Your task to perform on an android device: check data usage Image 0: 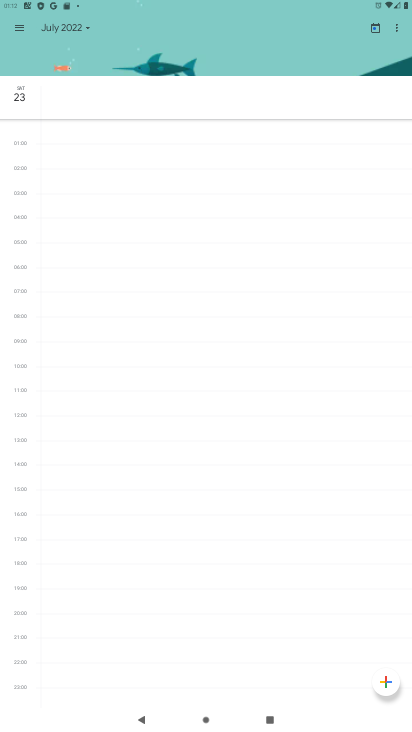
Step 0: press home button
Your task to perform on an android device: check data usage Image 1: 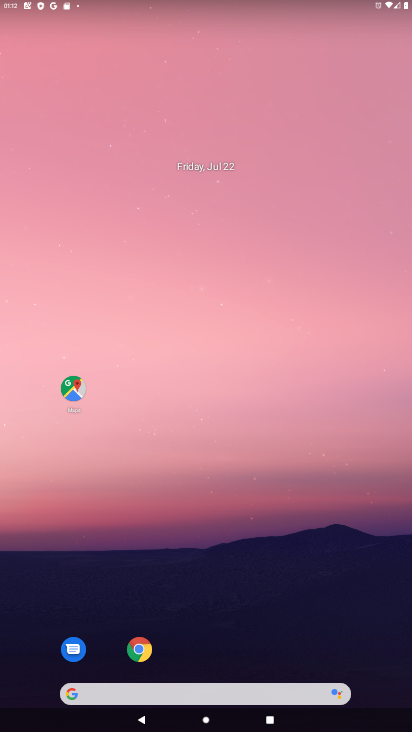
Step 1: drag from (206, 603) to (122, 152)
Your task to perform on an android device: check data usage Image 2: 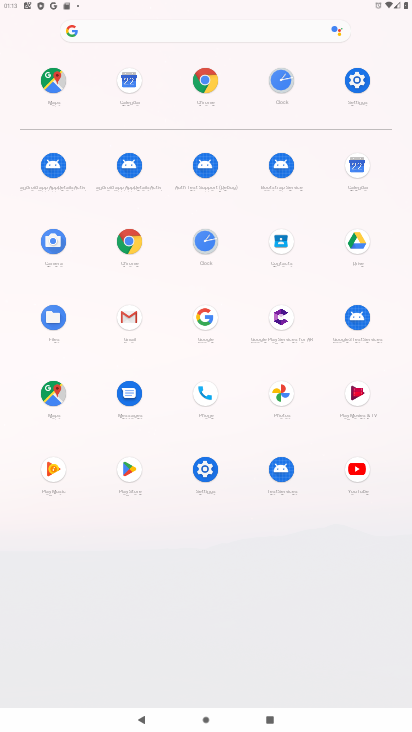
Step 2: click (359, 76)
Your task to perform on an android device: check data usage Image 3: 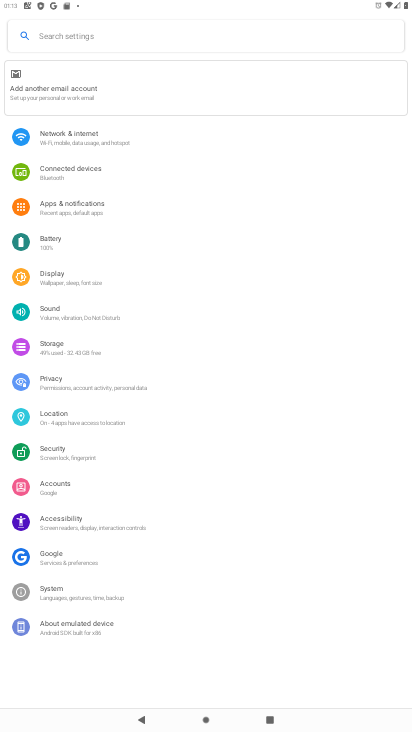
Step 3: click (71, 145)
Your task to perform on an android device: check data usage Image 4: 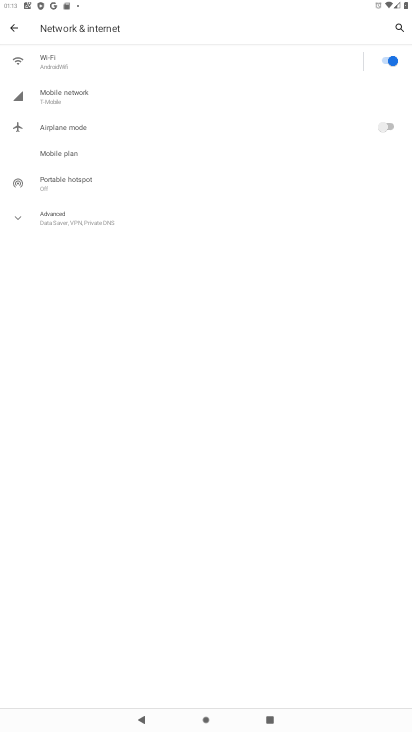
Step 4: click (87, 95)
Your task to perform on an android device: check data usage Image 5: 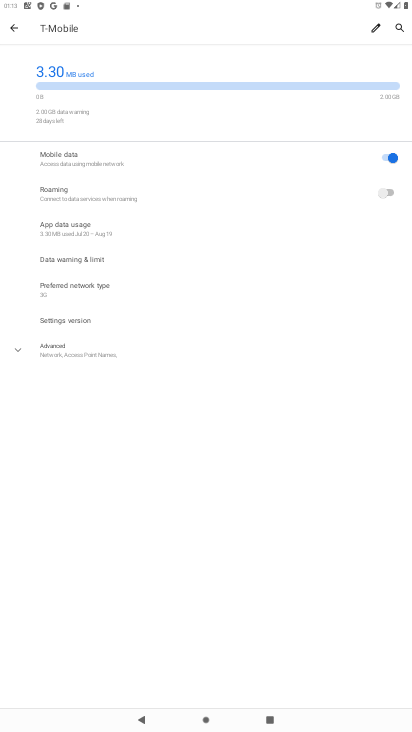
Step 5: task complete